Your task to perform on an android device: Go to sound settings Image 0: 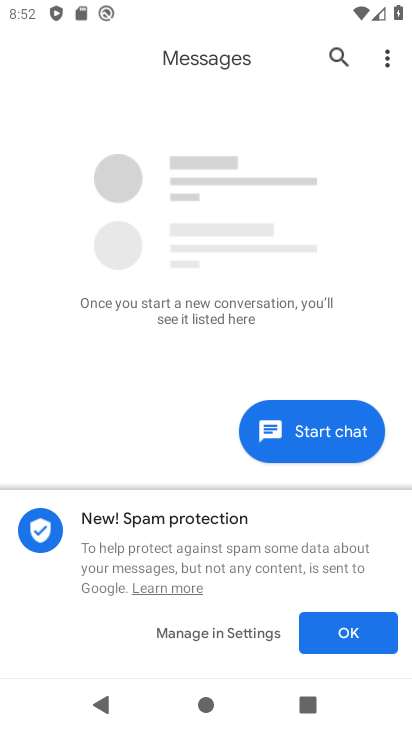
Step 0: press home button
Your task to perform on an android device: Go to sound settings Image 1: 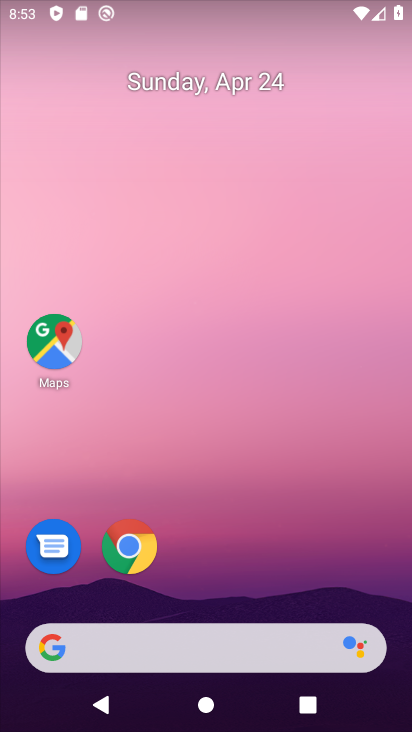
Step 1: drag from (232, 465) to (291, 125)
Your task to perform on an android device: Go to sound settings Image 2: 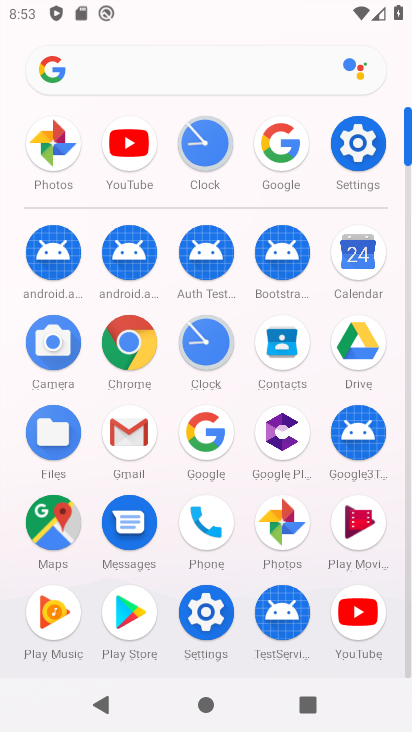
Step 2: click (349, 161)
Your task to perform on an android device: Go to sound settings Image 3: 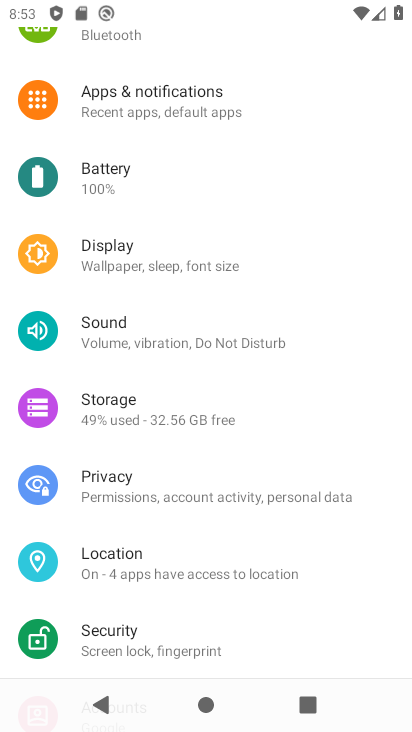
Step 3: click (178, 329)
Your task to perform on an android device: Go to sound settings Image 4: 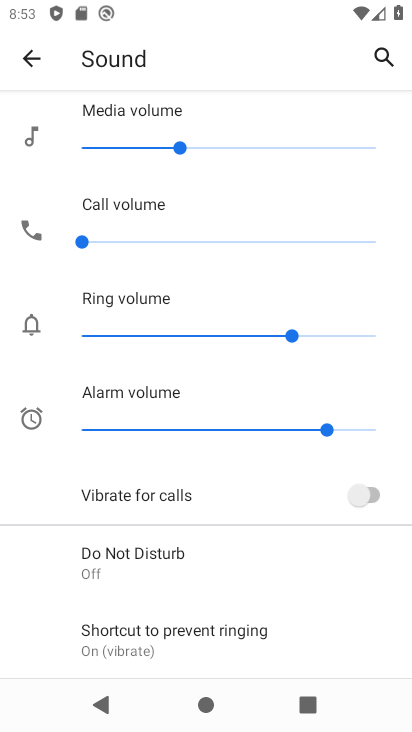
Step 4: task complete